Your task to perform on an android device: toggle priority inbox in the gmail app Image 0: 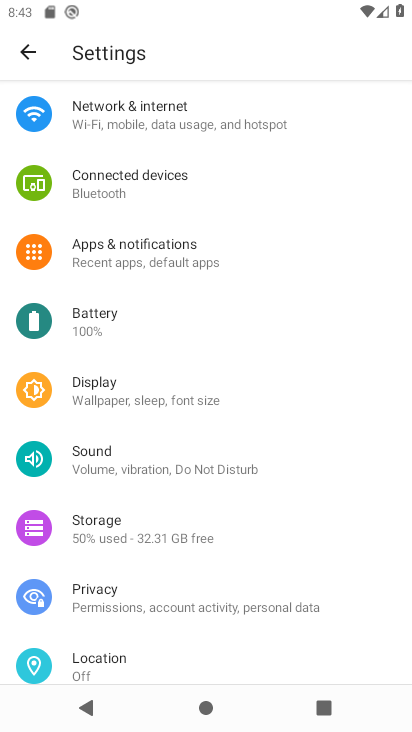
Step 0: press home button
Your task to perform on an android device: toggle priority inbox in the gmail app Image 1: 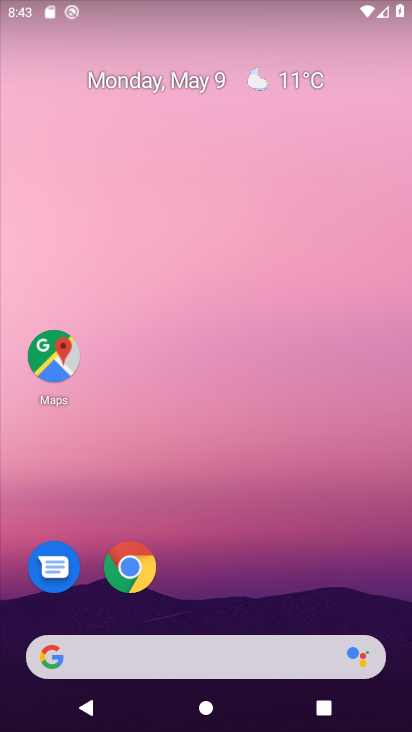
Step 1: drag from (271, 517) to (218, 40)
Your task to perform on an android device: toggle priority inbox in the gmail app Image 2: 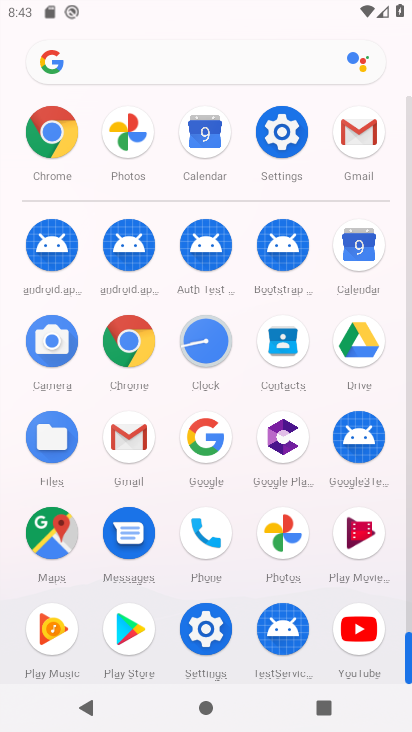
Step 2: click (355, 137)
Your task to perform on an android device: toggle priority inbox in the gmail app Image 3: 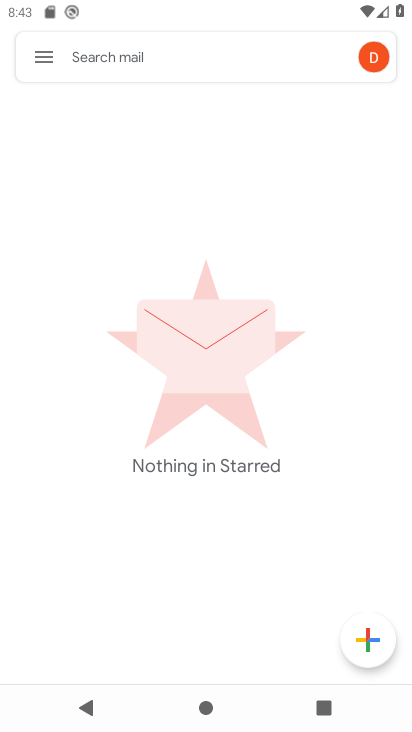
Step 3: click (40, 50)
Your task to perform on an android device: toggle priority inbox in the gmail app Image 4: 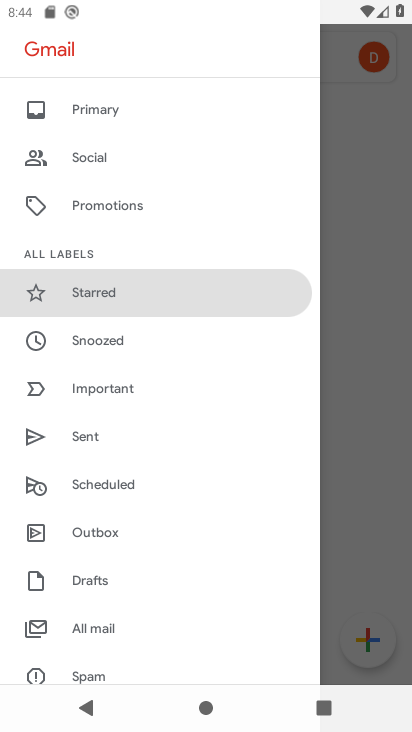
Step 4: drag from (138, 560) to (153, 215)
Your task to perform on an android device: toggle priority inbox in the gmail app Image 5: 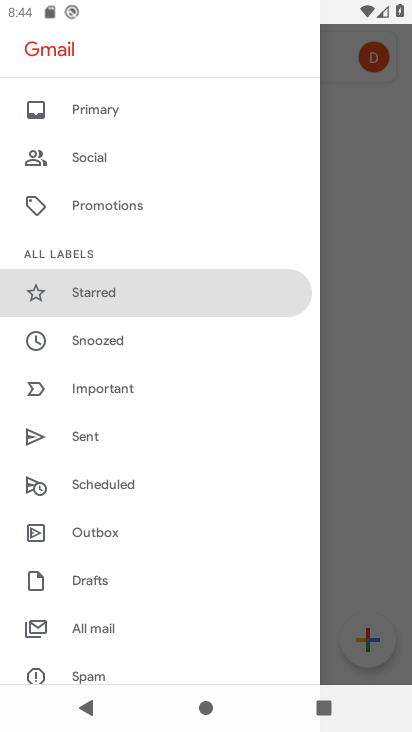
Step 5: drag from (188, 602) to (244, 196)
Your task to perform on an android device: toggle priority inbox in the gmail app Image 6: 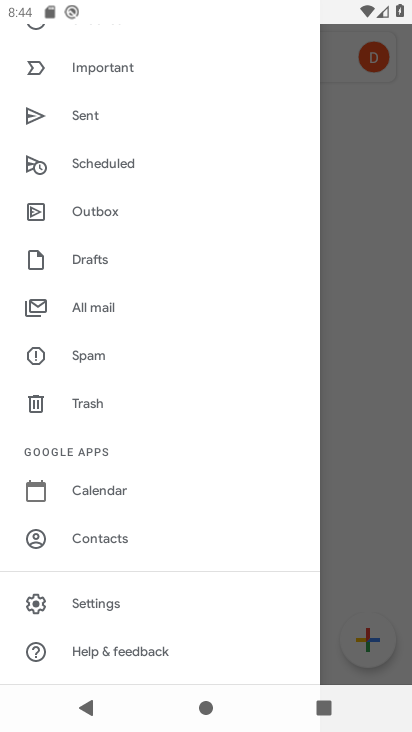
Step 6: click (118, 594)
Your task to perform on an android device: toggle priority inbox in the gmail app Image 7: 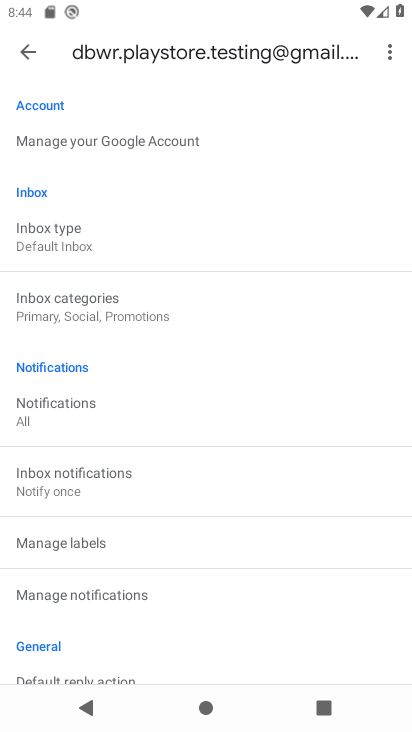
Step 7: click (39, 203)
Your task to perform on an android device: toggle priority inbox in the gmail app Image 8: 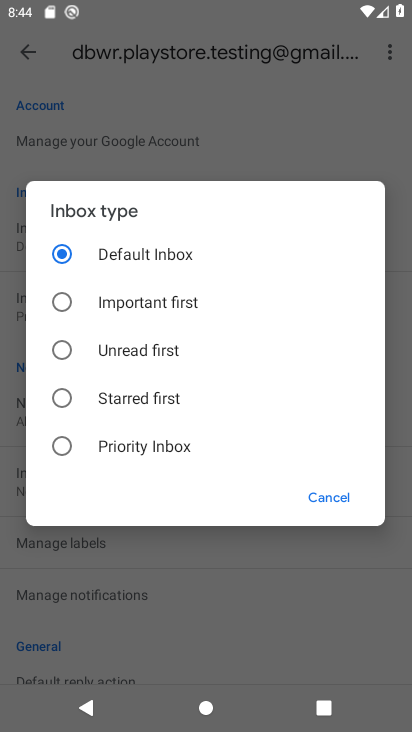
Step 8: click (61, 445)
Your task to perform on an android device: toggle priority inbox in the gmail app Image 9: 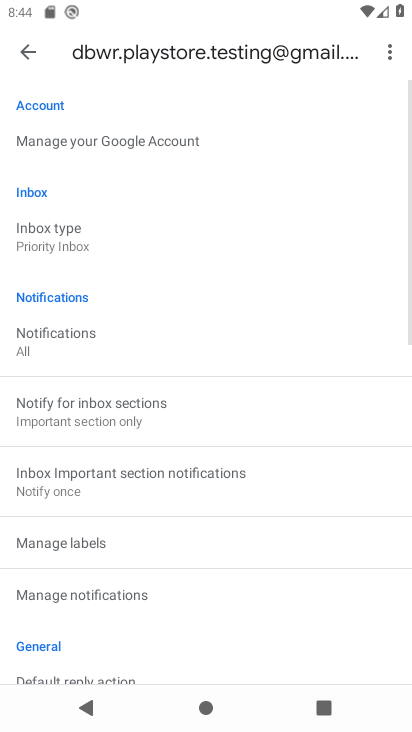
Step 9: task complete